Your task to perform on an android device: Open the stopwatch Image 0: 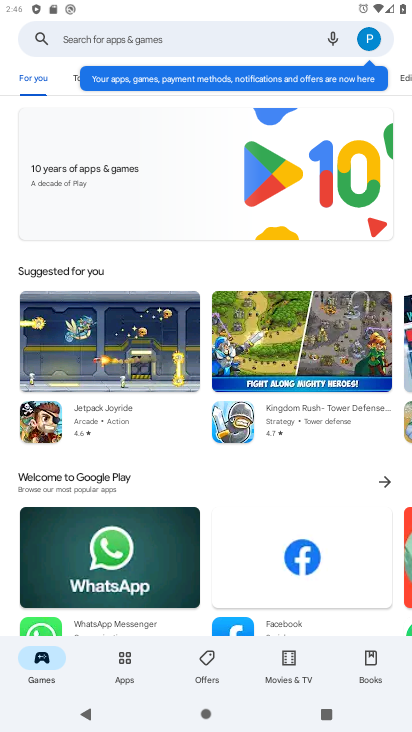
Step 0: press home button
Your task to perform on an android device: Open the stopwatch Image 1: 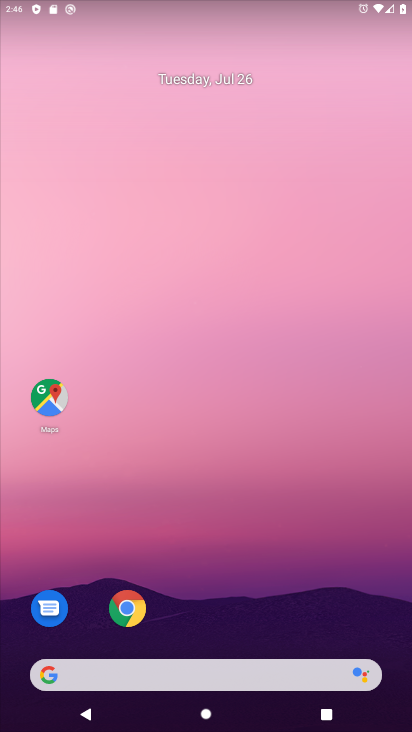
Step 1: drag from (279, 610) to (253, 204)
Your task to perform on an android device: Open the stopwatch Image 2: 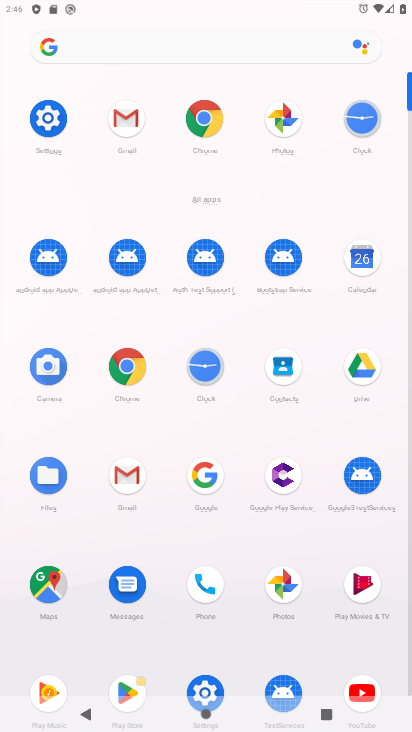
Step 2: click (205, 366)
Your task to perform on an android device: Open the stopwatch Image 3: 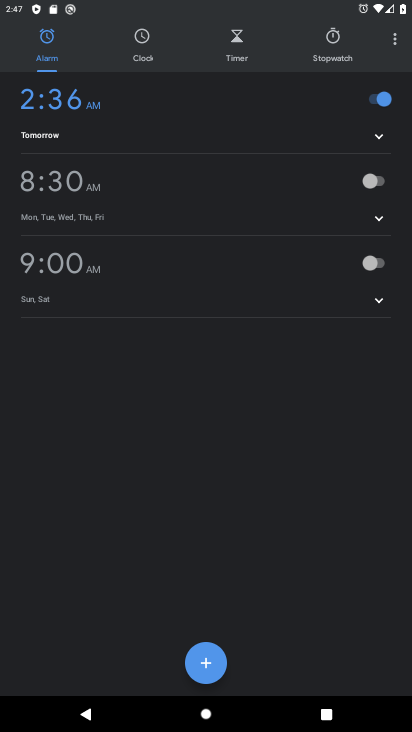
Step 3: click (319, 48)
Your task to perform on an android device: Open the stopwatch Image 4: 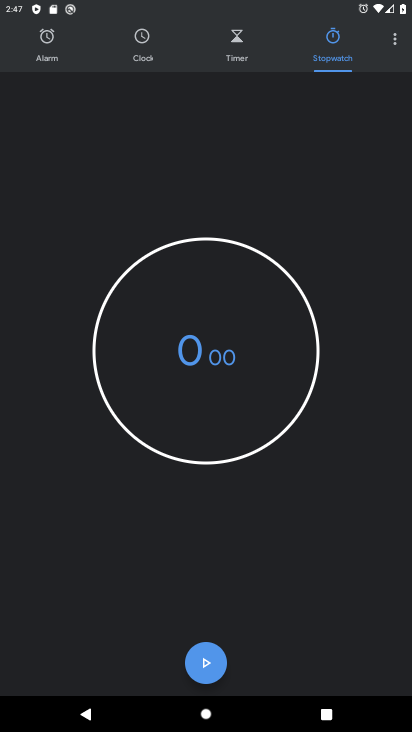
Step 4: task complete